Your task to perform on an android device: Search for pizza restaurants on Maps Image 0: 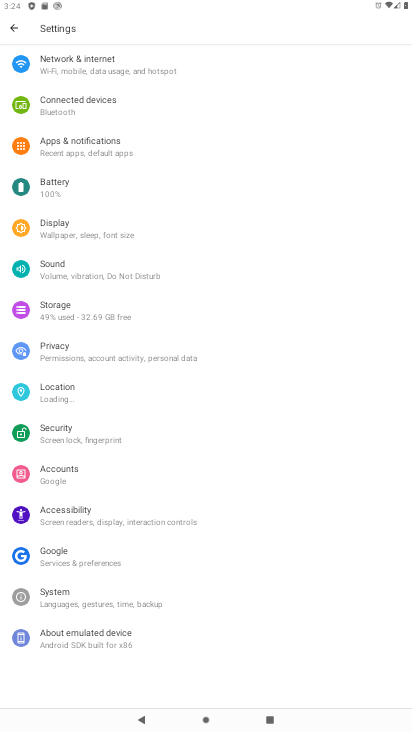
Step 0: drag from (178, 622) to (264, 170)
Your task to perform on an android device: Search for pizza restaurants on Maps Image 1: 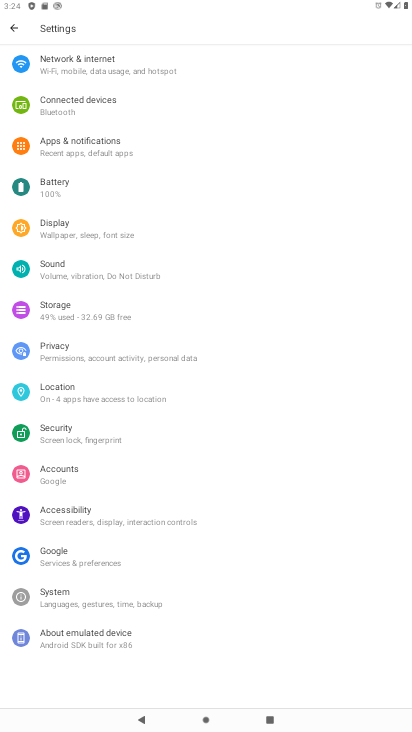
Step 1: drag from (268, 211) to (403, 682)
Your task to perform on an android device: Search for pizza restaurants on Maps Image 2: 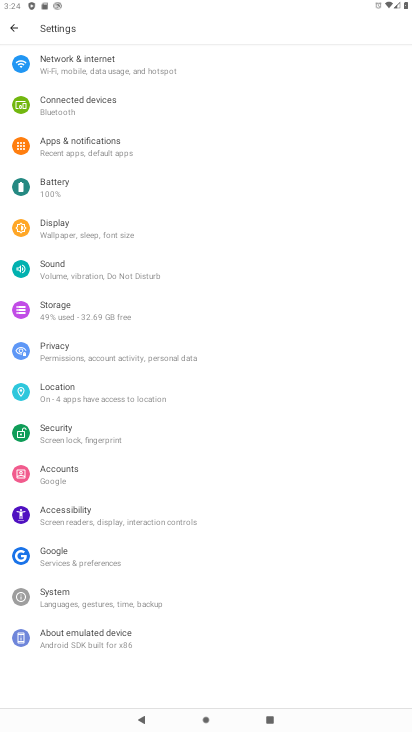
Step 2: press home button
Your task to perform on an android device: Search for pizza restaurants on Maps Image 3: 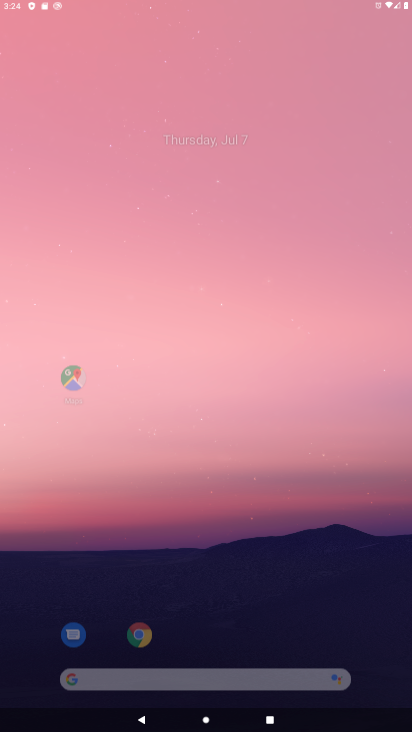
Step 3: drag from (253, 473) to (250, 147)
Your task to perform on an android device: Search for pizza restaurants on Maps Image 4: 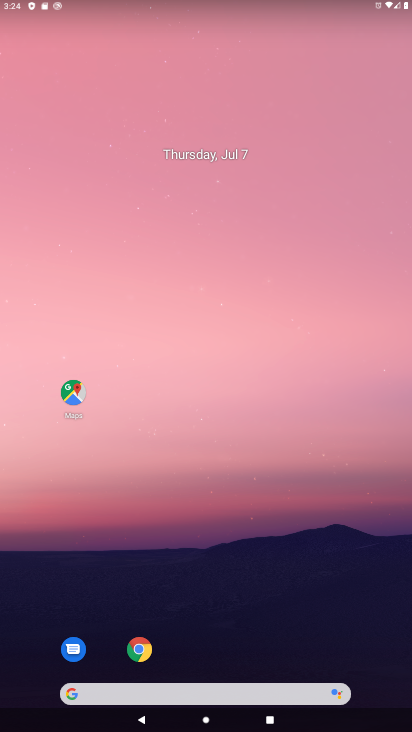
Step 4: click (72, 390)
Your task to perform on an android device: Search for pizza restaurants on Maps Image 5: 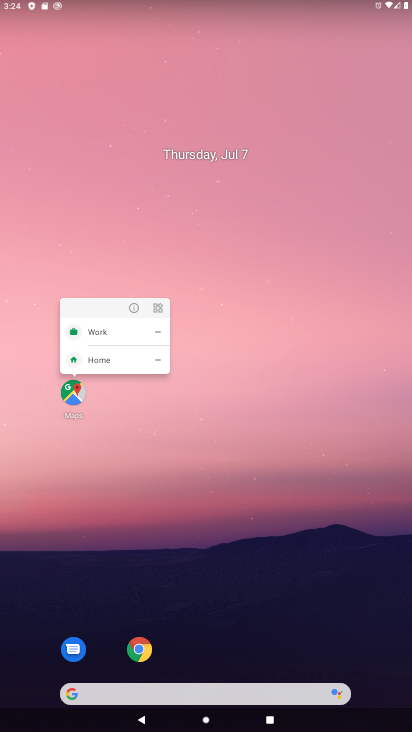
Step 5: click (134, 305)
Your task to perform on an android device: Search for pizza restaurants on Maps Image 6: 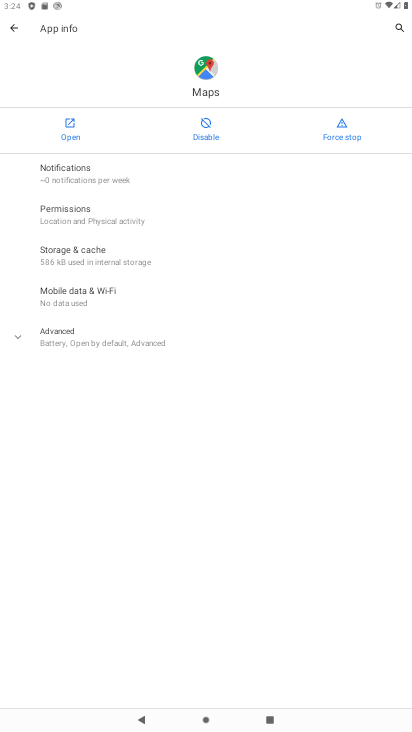
Step 6: click (68, 136)
Your task to perform on an android device: Search for pizza restaurants on Maps Image 7: 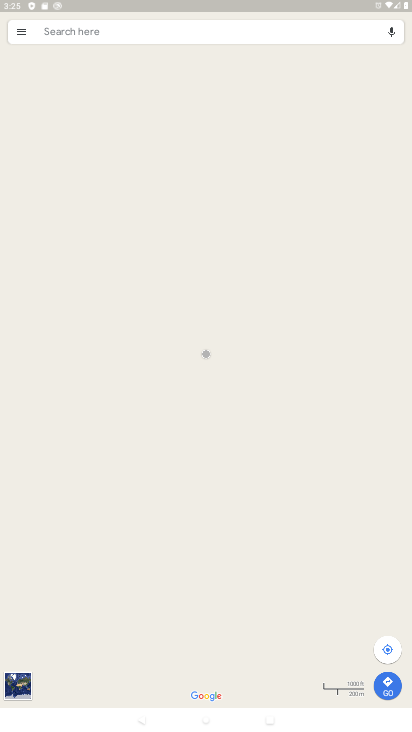
Step 7: click (87, 36)
Your task to perform on an android device: Search for pizza restaurants on Maps Image 8: 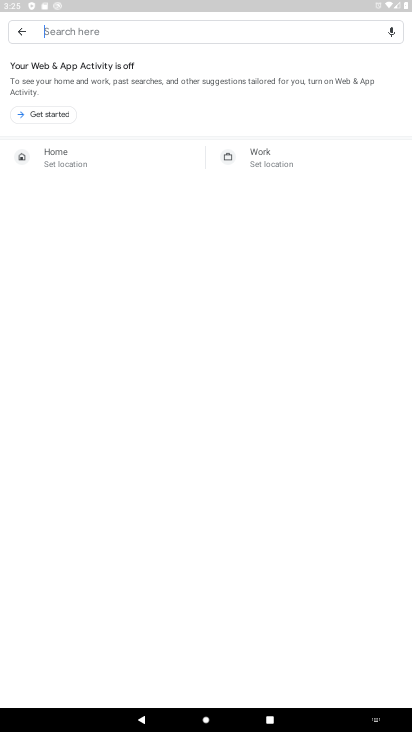
Step 8: type "pizza restaurants"
Your task to perform on an android device: Search for pizza restaurants on Maps Image 9: 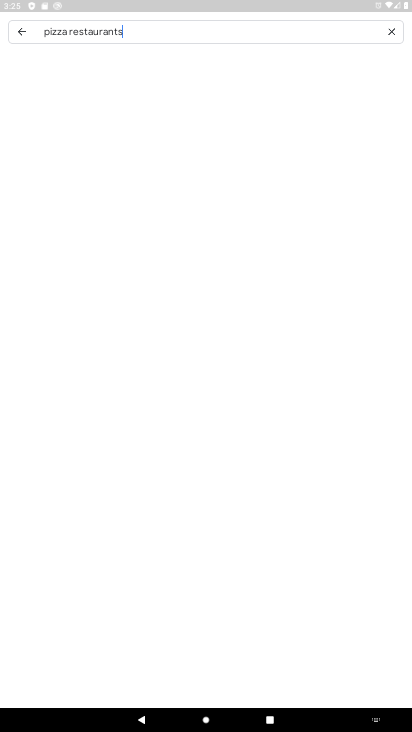
Step 9: type ""
Your task to perform on an android device: Search for pizza restaurants on Maps Image 10: 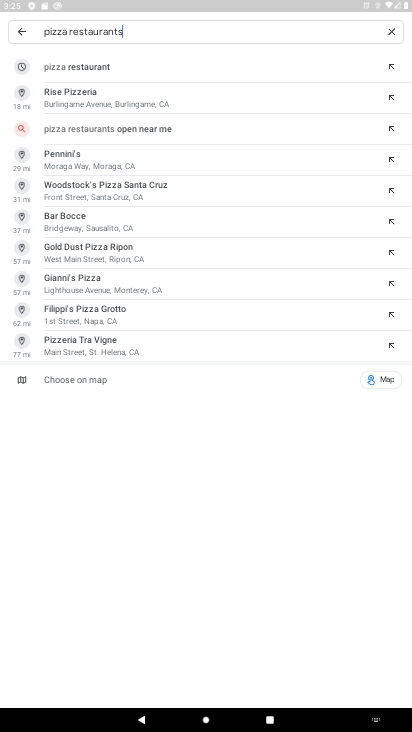
Step 10: click (66, 67)
Your task to perform on an android device: Search for pizza restaurants on Maps Image 11: 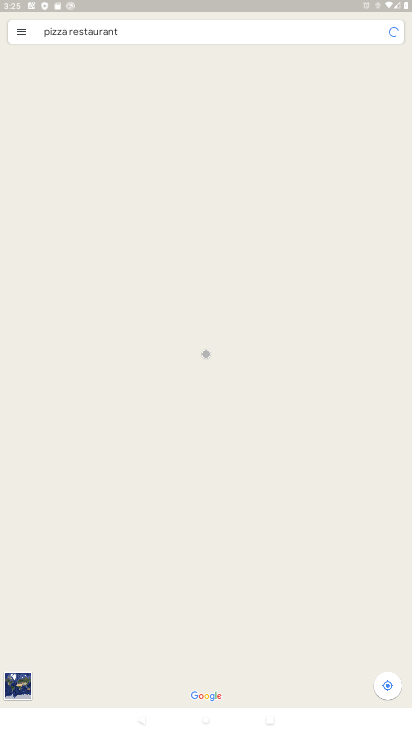
Step 11: task complete